Your task to perform on an android device: Search for Mexican restaurants on Maps Image 0: 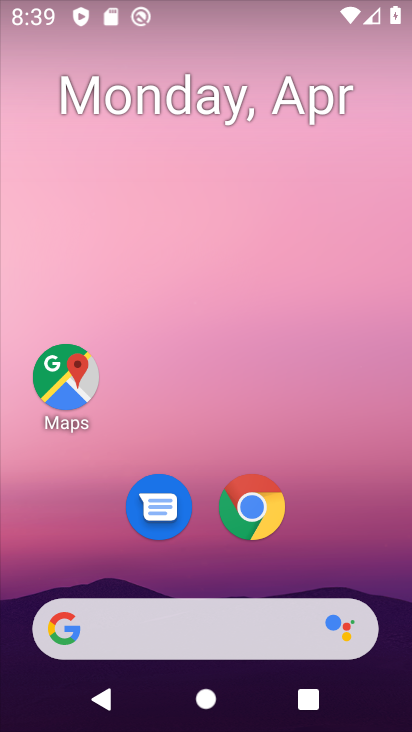
Step 0: click (56, 389)
Your task to perform on an android device: Search for Mexican restaurants on Maps Image 1: 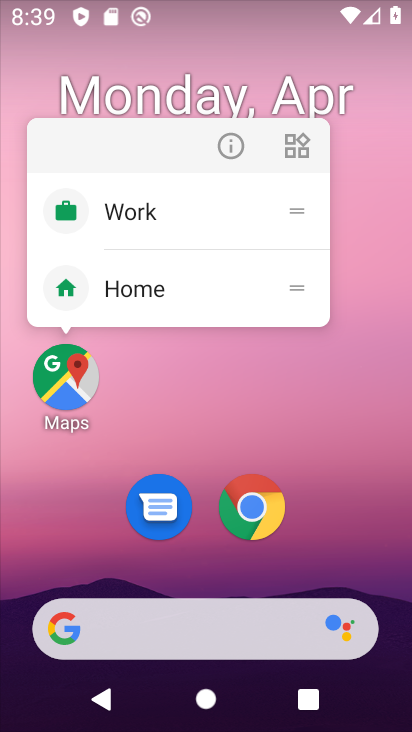
Step 1: click (75, 401)
Your task to perform on an android device: Search for Mexican restaurants on Maps Image 2: 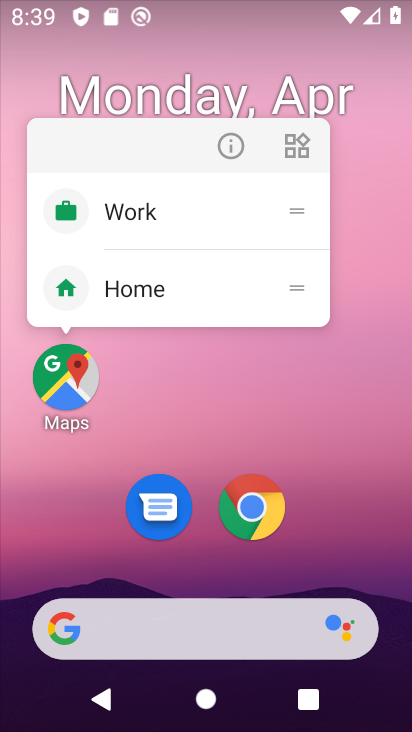
Step 2: click (61, 388)
Your task to perform on an android device: Search for Mexican restaurants on Maps Image 3: 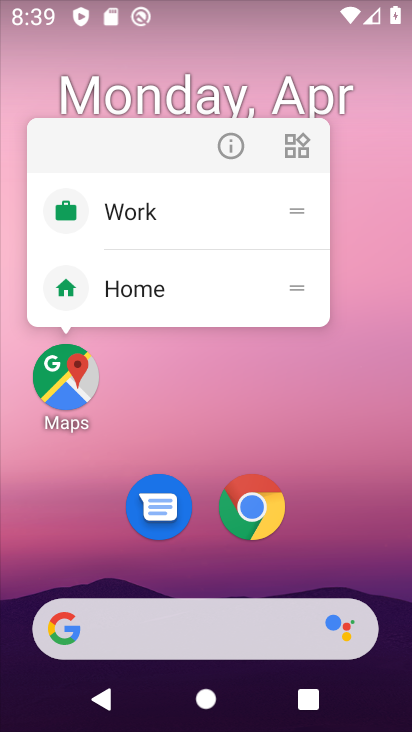
Step 3: click (77, 388)
Your task to perform on an android device: Search for Mexican restaurants on Maps Image 4: 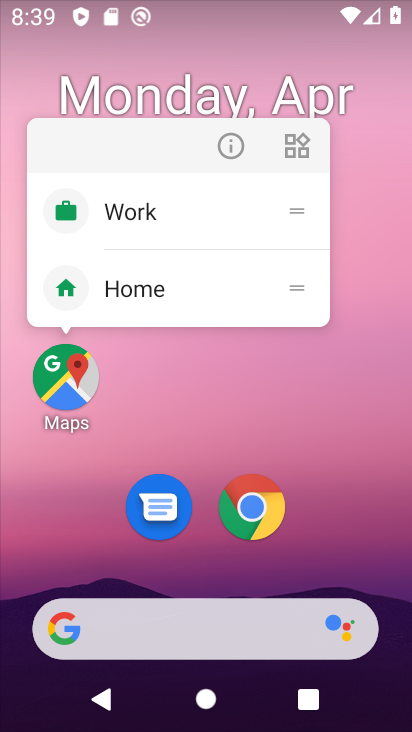
Step 4: click (66, 392)
Your task to perform on an android device: Search for Mexican restaurants on Maps Image 5: 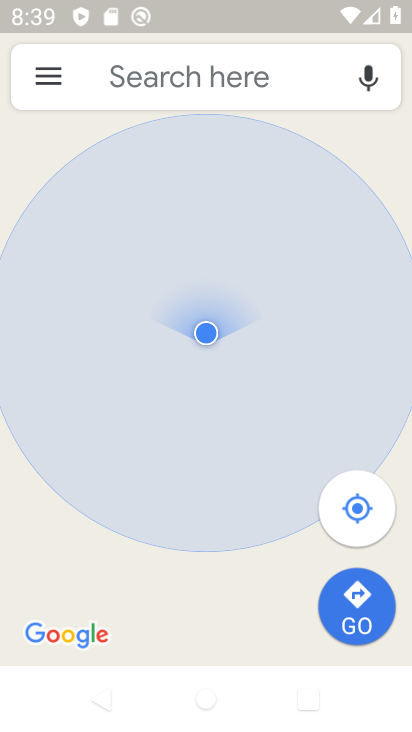
Step 5: click (172, 84)
Your task to perform on an android device: Search for Mexican restaurants on Maps Image 6: 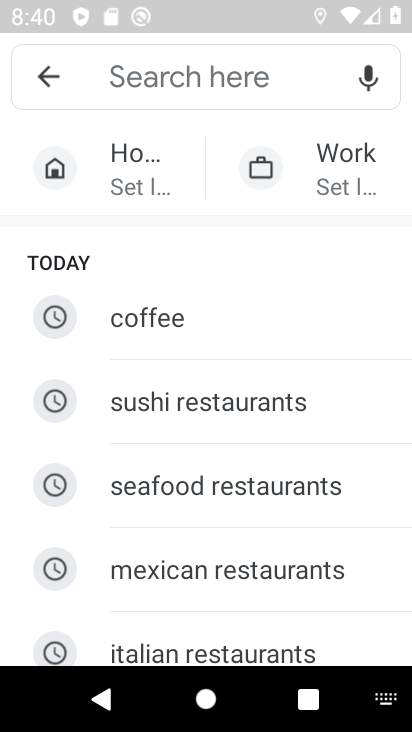
Step 6: click (208, 571)
Your task to perform on an android device: Search for Mexican restaurants on Maps Image 7: 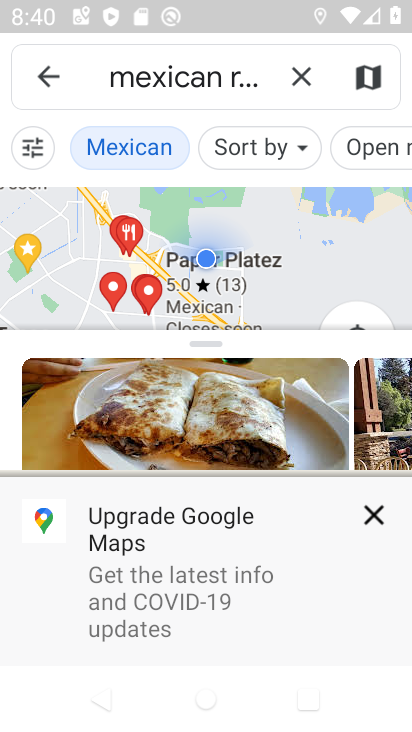
Step 7: task complete